Your task to perform on an android device: Open ESPN.com Image 0: 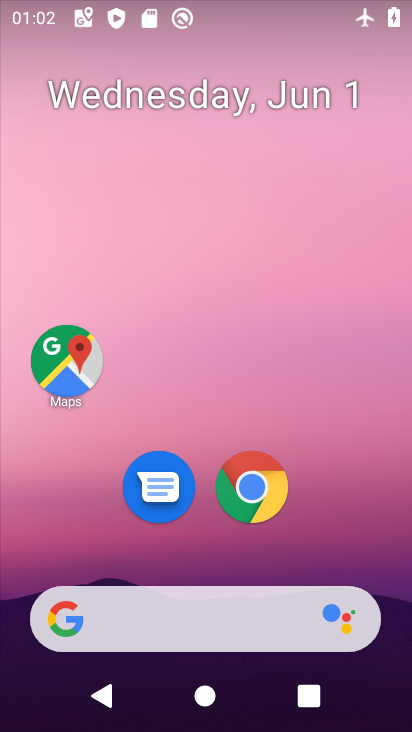
Step 0: click (229, 474)
Your task to perform on an android device: Open ESPN.com Image 1: 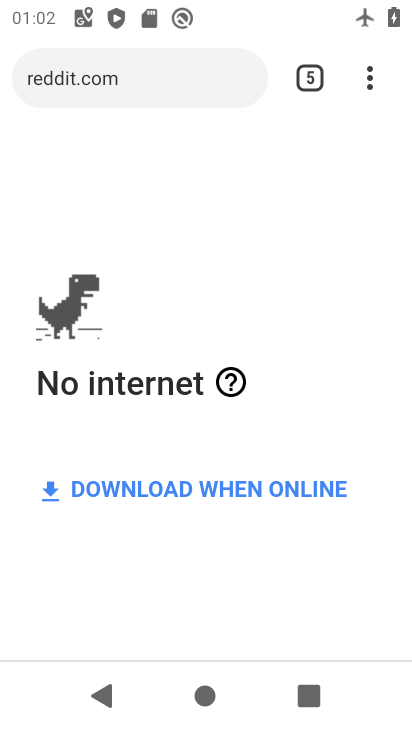
Step 1: click (354, 74)
Your task to perform on an android device: Open ESPN.com Image 2: 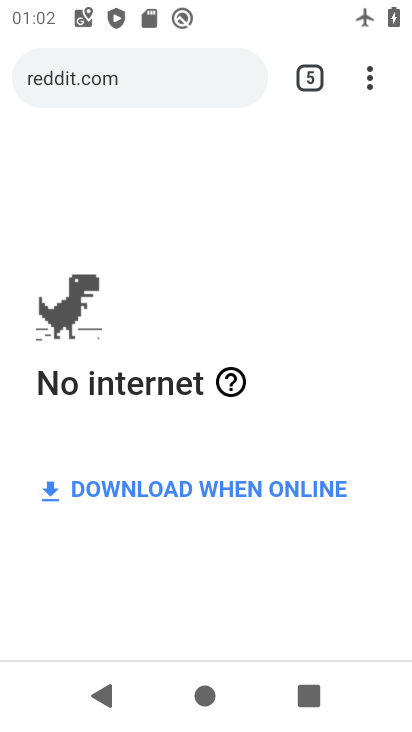
Step 2: click (367, 79)
Your task to perform on an android device: Open ESPN.com Image 3: 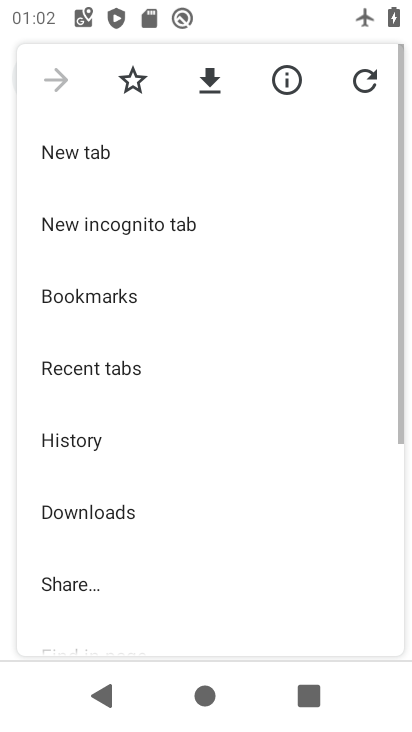
Step 3: click (82, 155)
Your task to perform on an android device: Open ESPN.com Image 4: 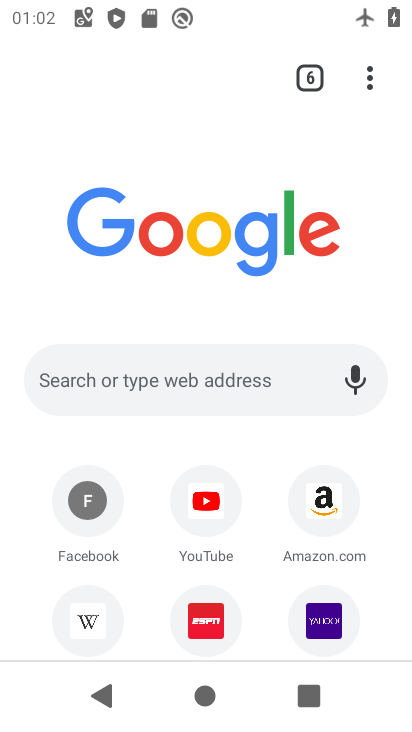
Step 4: click (208, 624)
Your task to perform on an android device: Open ESPN.com Image 5: 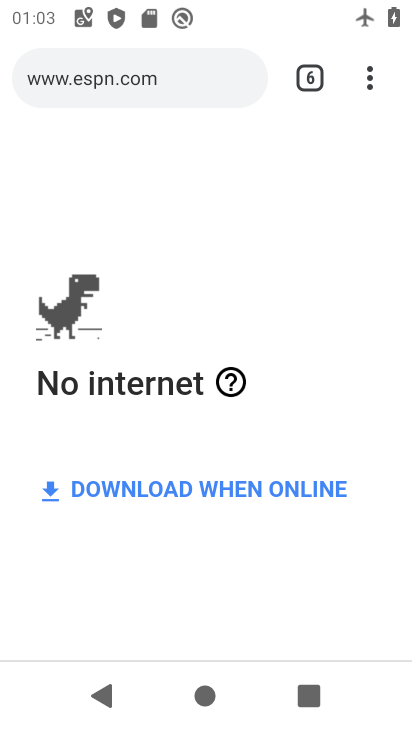
Step 5: task complete